Your task to perform on an android device: toggle show notifications on the lock screen Image 0: 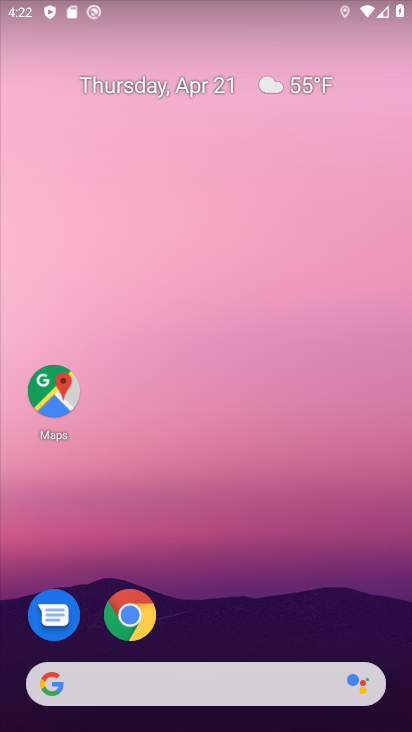
Step 0: drag from (220, 533) to (220, 183)
Your task to perform on an android device: toggle show notifications on the lock screen Image 1: 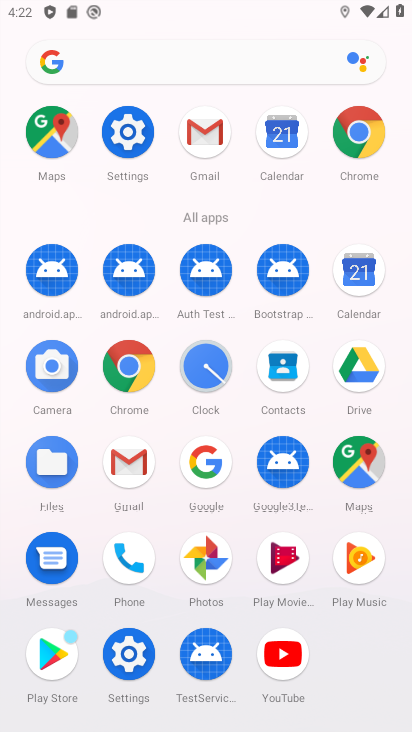
Step 1: click (116, 145)
Your task to perform on an android device: toggle show notifications on the lock screen Image 2: 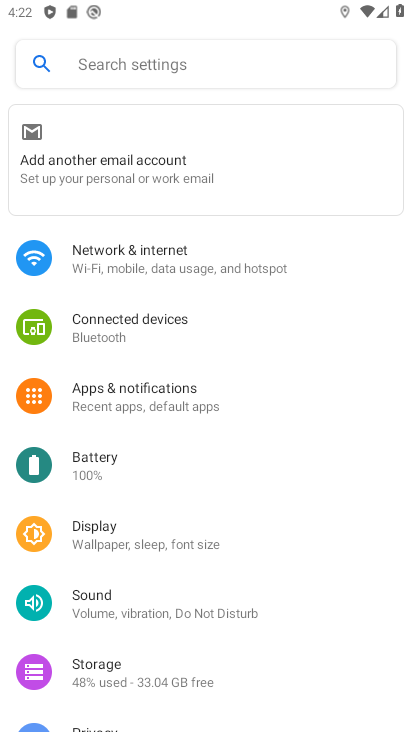
Step 2: click (171, 394)
Your task to perform on an android device: toggle show notifications on the lock screen Image 3: 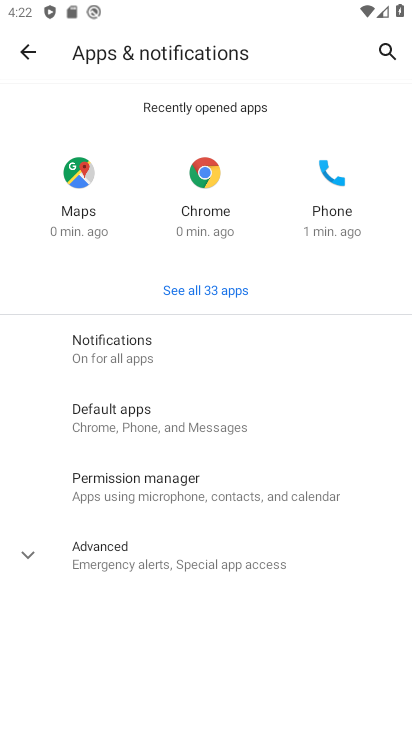
Step 3: click (153, 362)
Your task to perform on an android device: toggle show notifications on the lock screen Image 4: 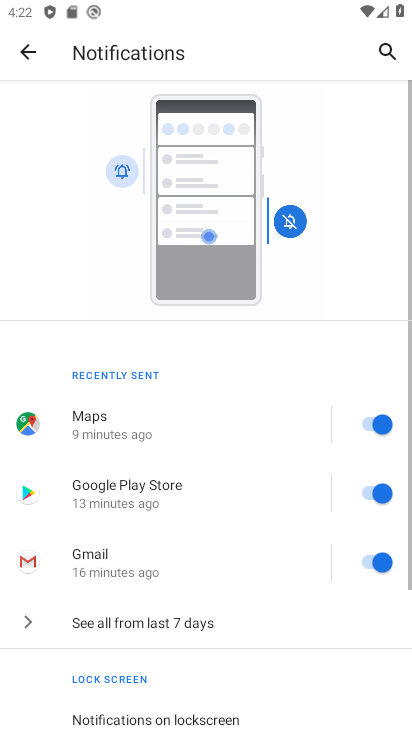
Step 4: drag from (222, 661) to (212, 284)
Your task to perform on an android device: toggle show notifications on the lock screen Image 5: 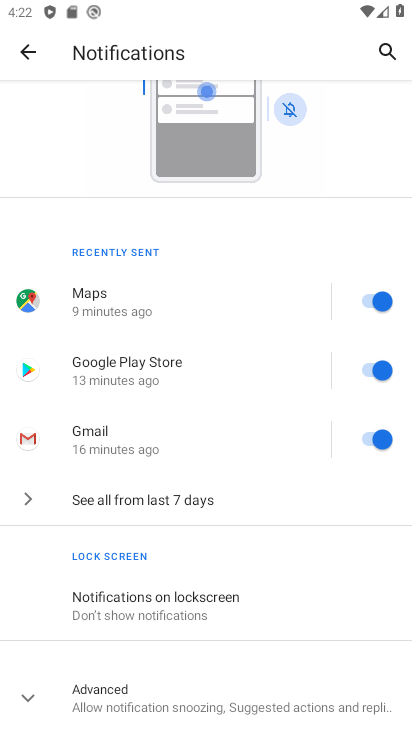
Step 5: click (221, 600)
Your task to perform on an android device: toggle show notifications on the lock screen Image 6: 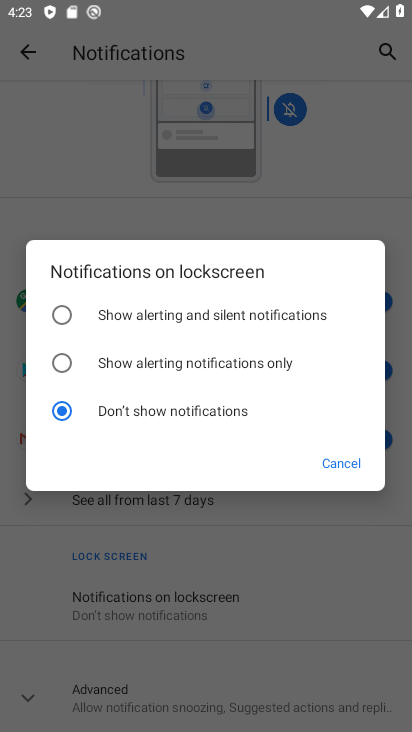
Step 6: click (159, 323)
Your task to perform on an android device: toggle show notifications on the lock screen Image 7: 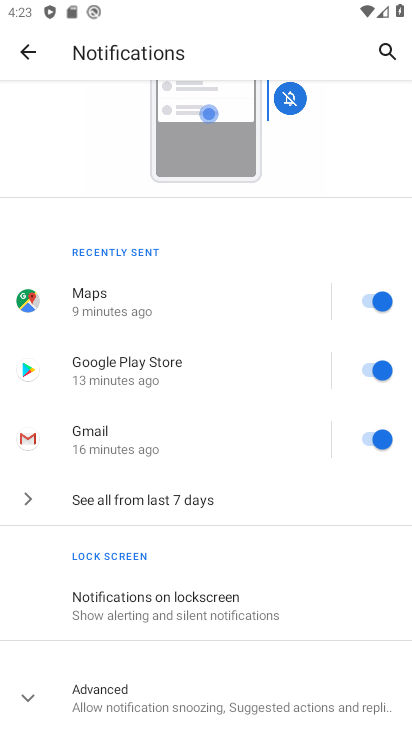
Step 7: task complete